Your task to perform on an android device: change text size in settings app Image 0: 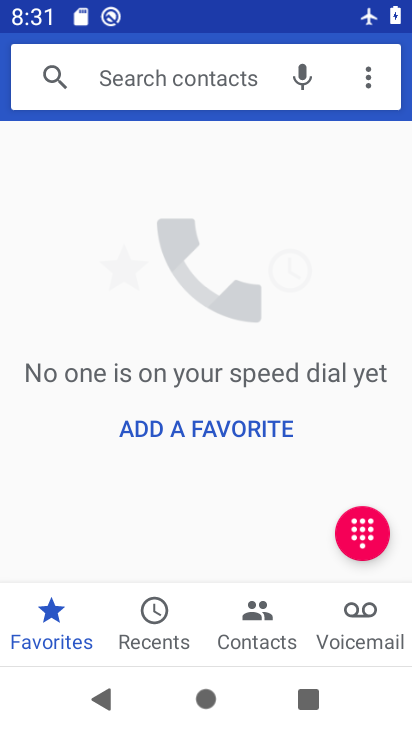
Step 0: press home button
Your task to perform on an android device: change text size in settings app Image 1: 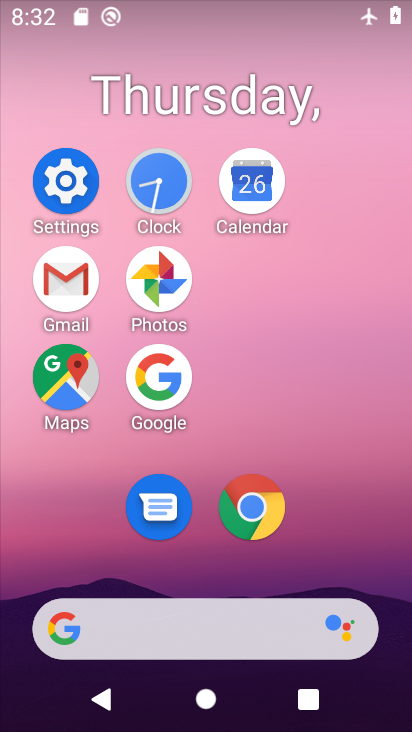
Step 1: click (81, 186)
Your task to perform on an android device: change text size in settings app Image 2: 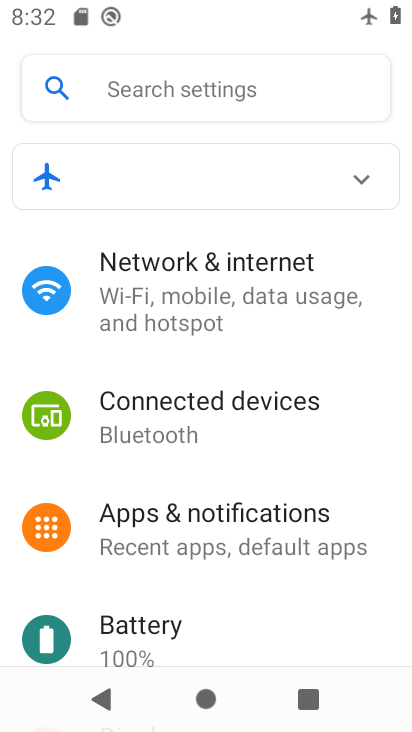
Step 2: drag from (265, 364) to (249, 229)
Your task to perform on an android device: change text size in settings app Image 3: 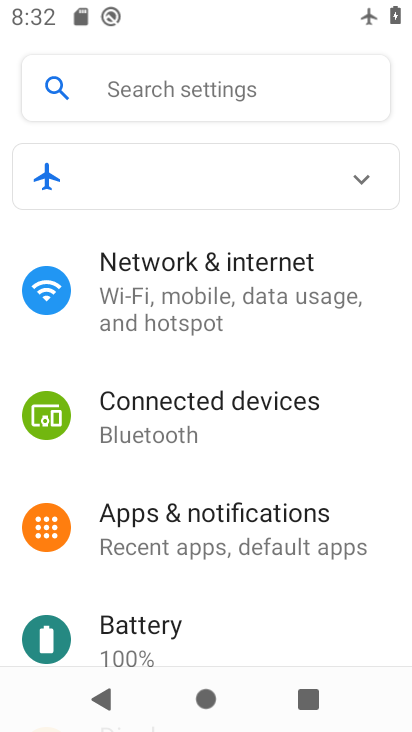
Step 3: drag from (246, 579) to (279, 217)
Your task to perform on an android device: change text size in settings app Image 4: 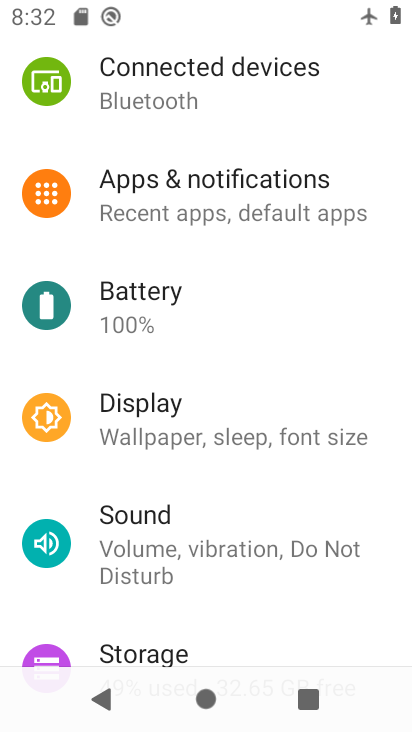
Step 4: drag from (300, 616) to (298, 224)
Your task to perform on an android device: change text size in settings app Image 5: 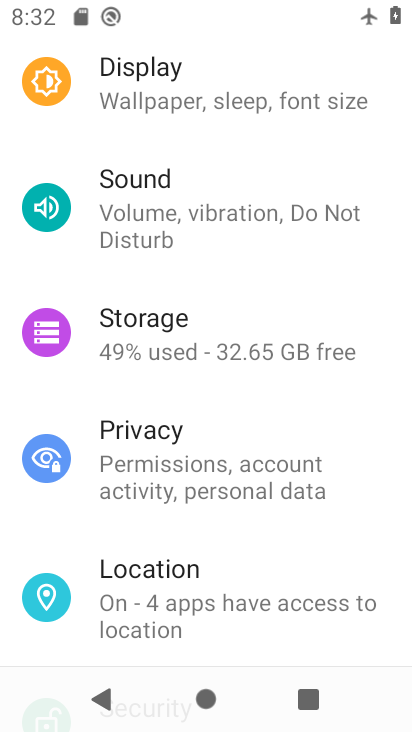
Step 5: drag from (316, 362) to (308, 609)
Your task to perform on an android device: change text size in settings app Image 6: 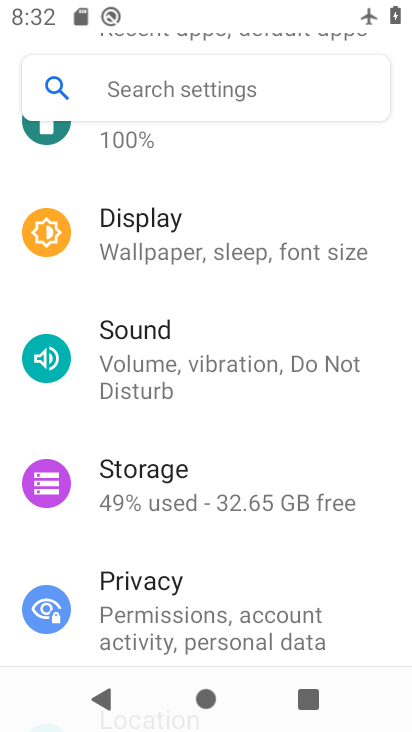
Step 6: click (266, 281)
Your task to perform on an android device: change text size in settings app Image 7: 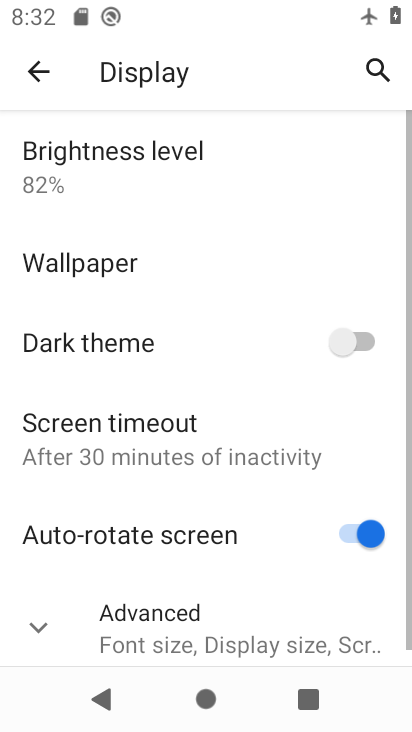
Step 7: drag from (207, 645) to (256, 276)
Your task to perform on an android device: change text size in settings app Image 8: 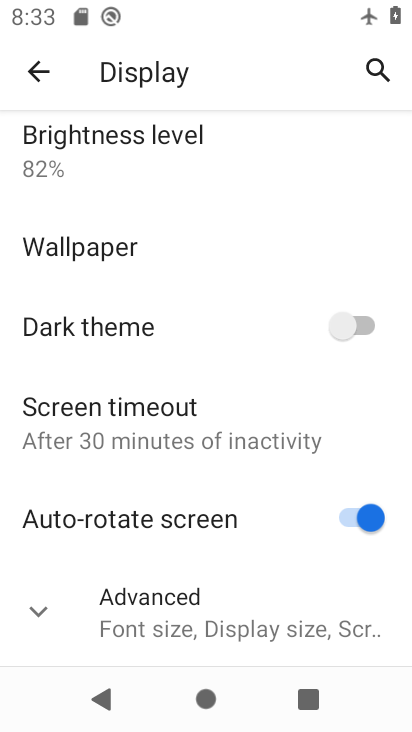
Step 8: click (203, 611)
Your task to perform on an android device: change text size in settings app Image 9: 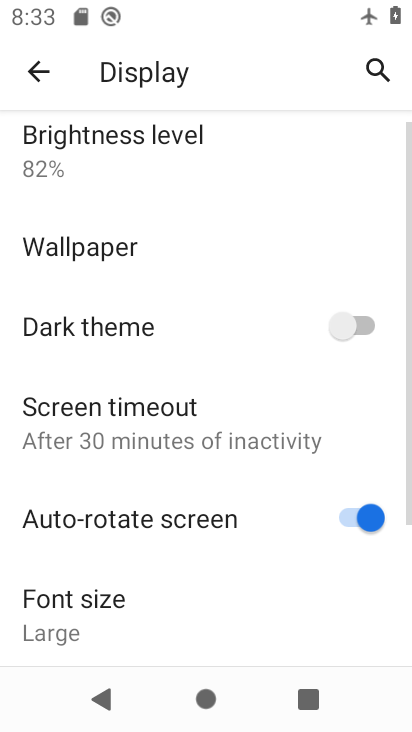
Step 9: click (203, 611)
Your task to perform on an android device: change text size in settings app Image 10: 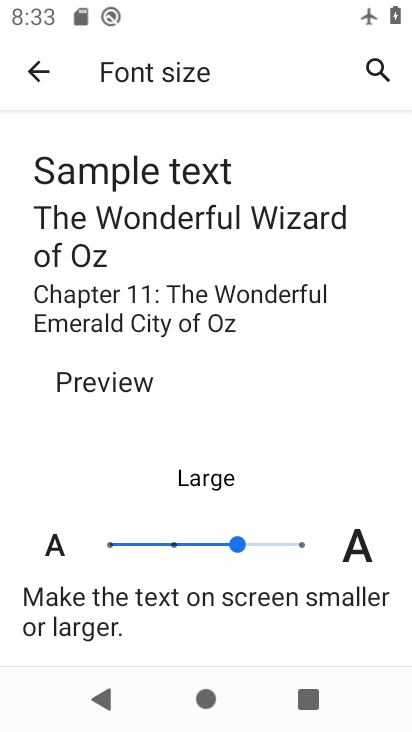
Step 10: click (173, 541)
Your task to perform on an android device: change text size in settings app Image 11: 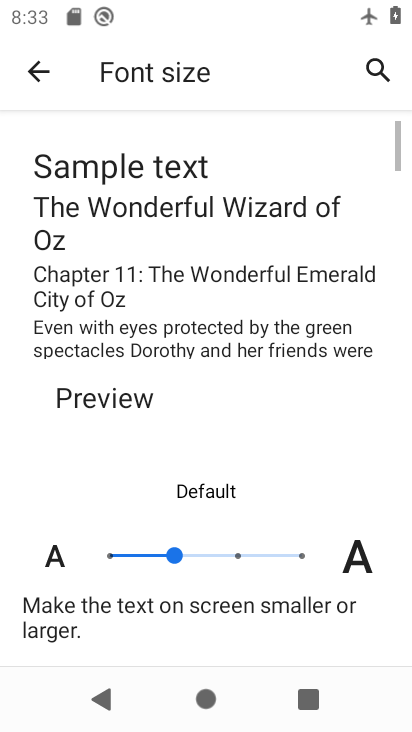
Step 11: task complete